Your task to perform on an android device: Open Google Maps and go to "Timeline" Image 0: 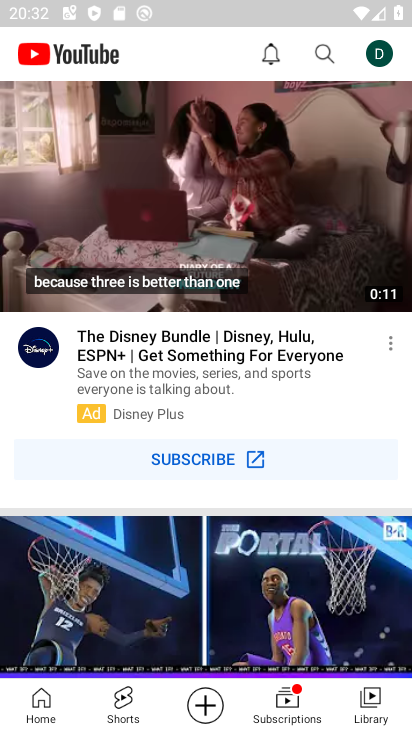
Step 0: press home button
Your task to perform on an android device: Open Google Maps and go to "Timeline" Image 1: 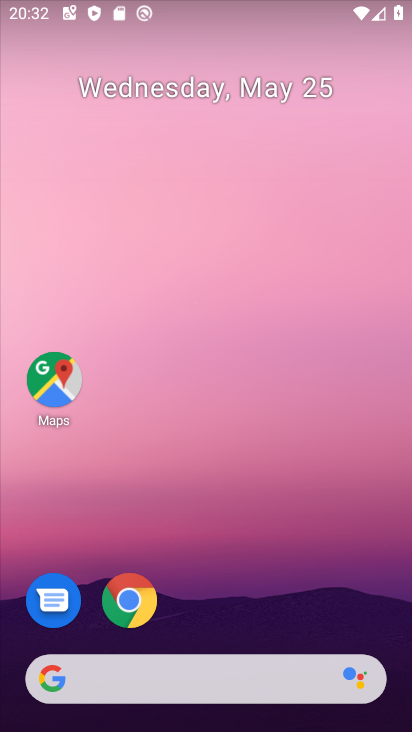
Step 1: drag from (361, 570) to (279, 70)
Your task to perform on an android device: Open Google Maps and go to "Timeline" Image 2: 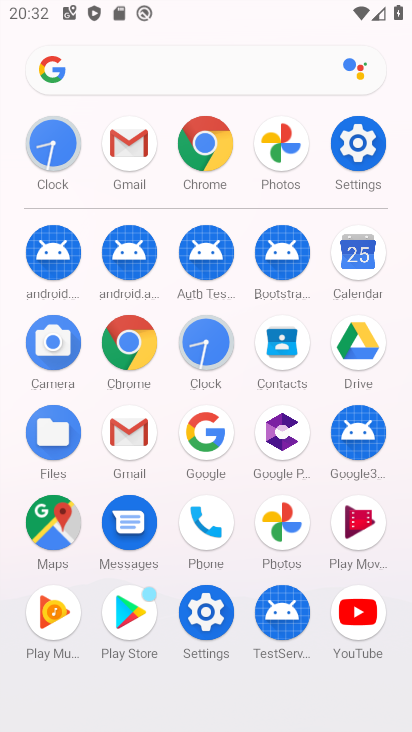
Step 2: click (50, 517)
Your task to perform on an android device: Open Google Maps and go to "Timeline" Image 3: 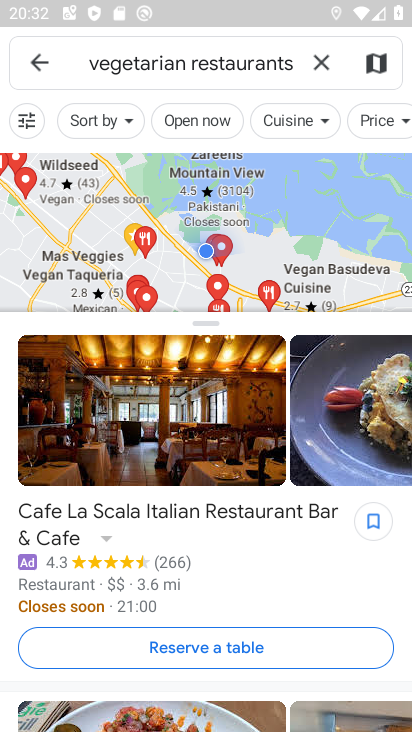
Step 3: click (40, 71)
Your task to perform on an android device: Open Google Maps and go to "Timeline" Image 4: 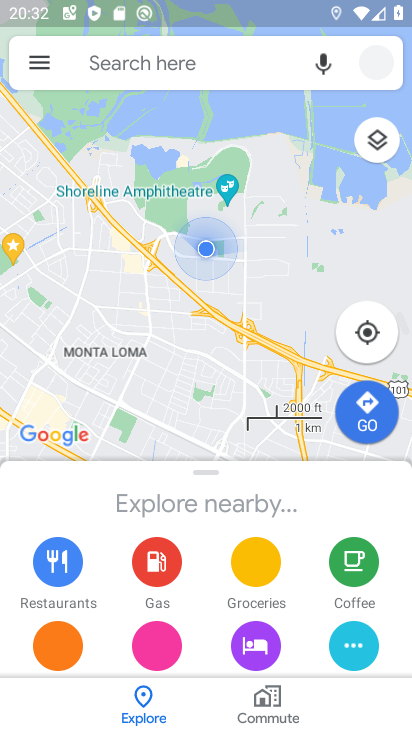
Step 4: click (39, 69)
Your task to perform on an android device: Open Google Maps and go to "Timeline" Image 5: 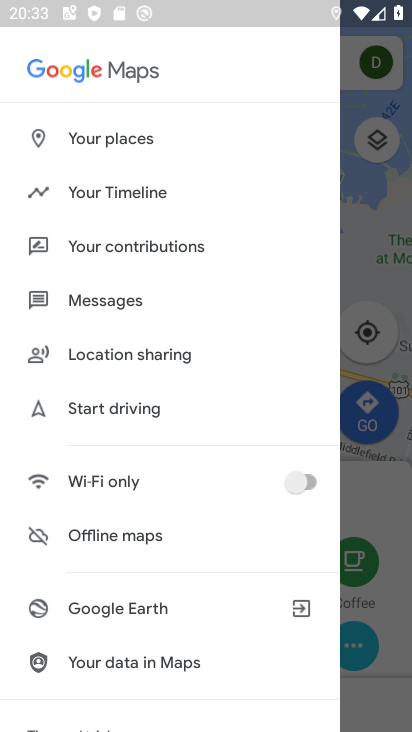
Step 5: click (142, 202)
Your task to perform on an android device: Open Google Maps and go to "Timeline" Image 6: 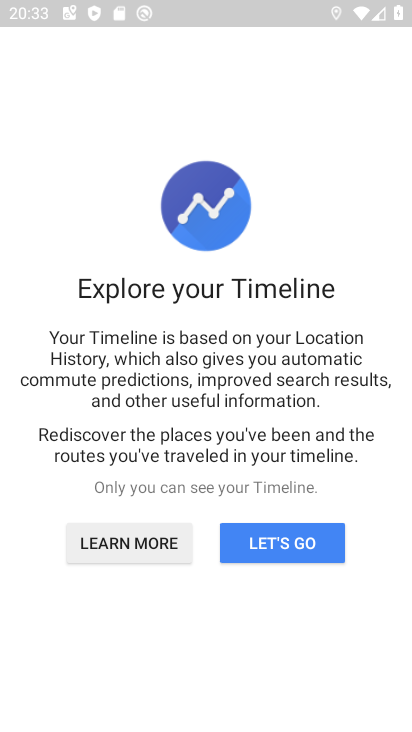
Step 6: task complete